Your task to perform on an android device: Open the calendar and show me this week's events? Image 0: 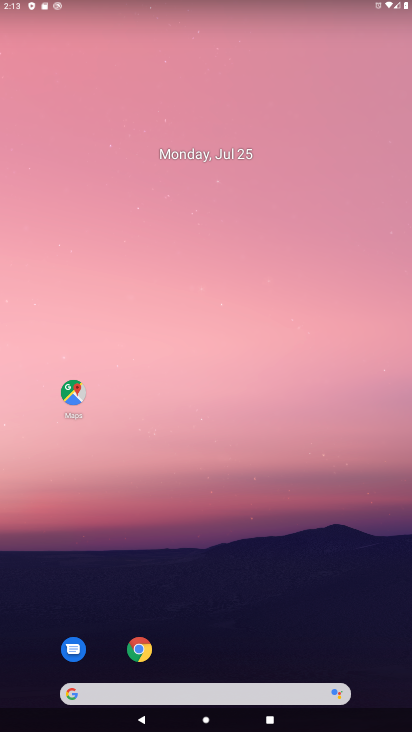
Step 0: drag from (383, 678) to (329, 73)
Your task to perform on an android device: Open the calendar and show me this week's events? Image 1: 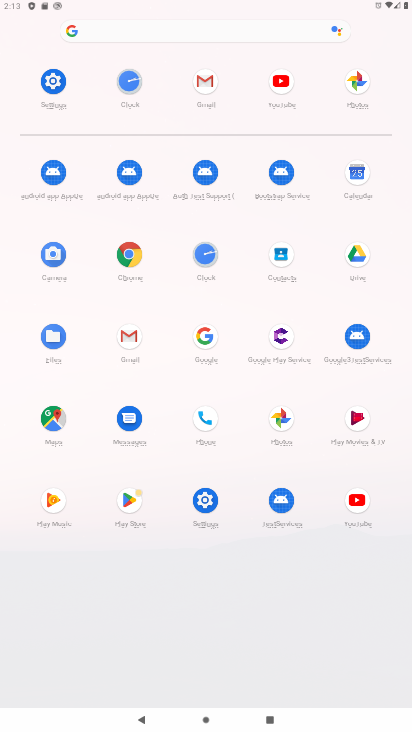
Step 1: click (355, 173)
Your task to perform on an android device: Open the calendar and show me this week's events? Image 2: 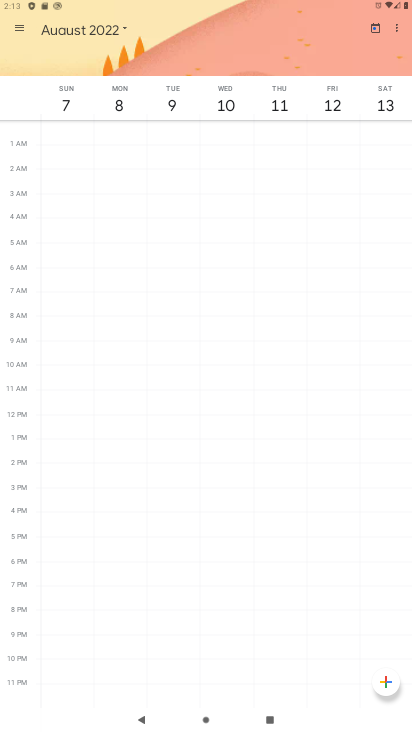
Step 2: click (17, 29)
Your task to perform on an android device: Open the calendar and show me this week's events? Image 3: 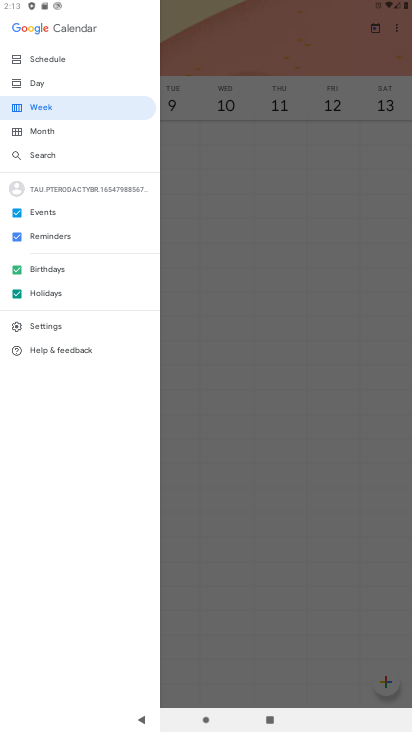
Step 3: click (76, 105)
Your task to perform on an android device: Open the calendar and show me this week's events? Image 4: 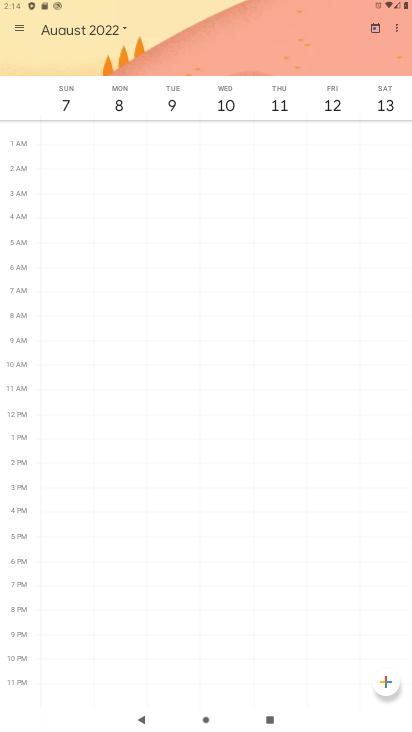
Step 4: click (123, 27)
Your task to perform on an android device: Open the calendar and show me this week's events? Image 5: 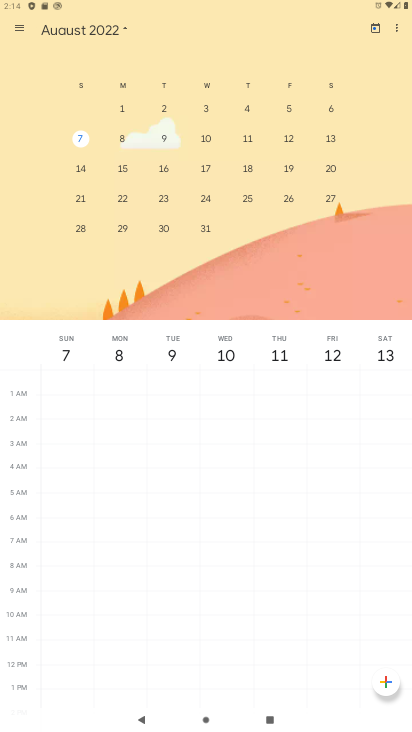
Step 5: drag from (77, 173) to (321, 171)
Your task to perform on an android device: Open the calendar and show me this week's events? Image 6: 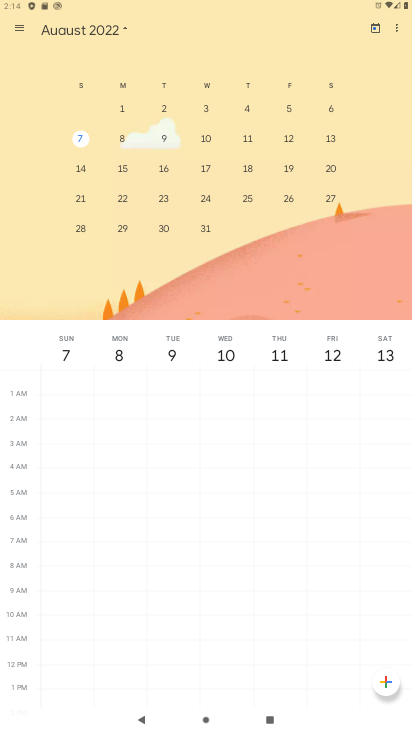
Step 6: drag from (80, 184) to (378, 169)
Your task to perform on an android device: Open the calendar and show me this week's events? Image 7: 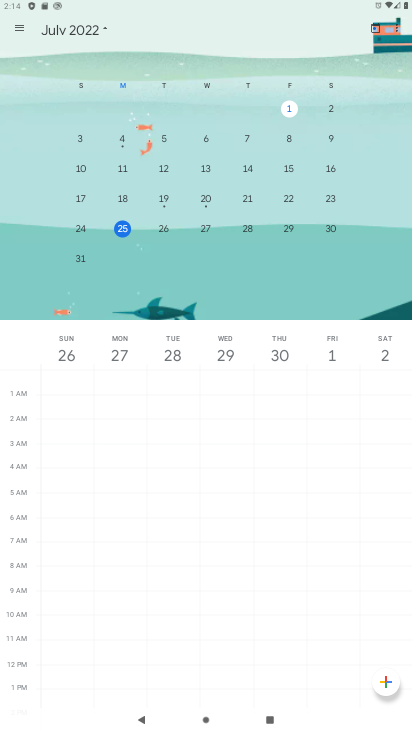
Step 7: click (123, 228)
Your task to perform on an android device: Open the calendar and show me this week's events? Image 8: 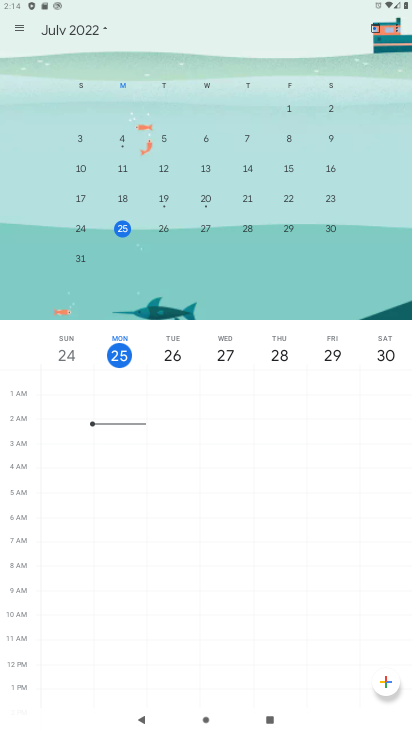
Step 8: task complete